Your task to perform on an android device: turn on sleep mode Image 0: 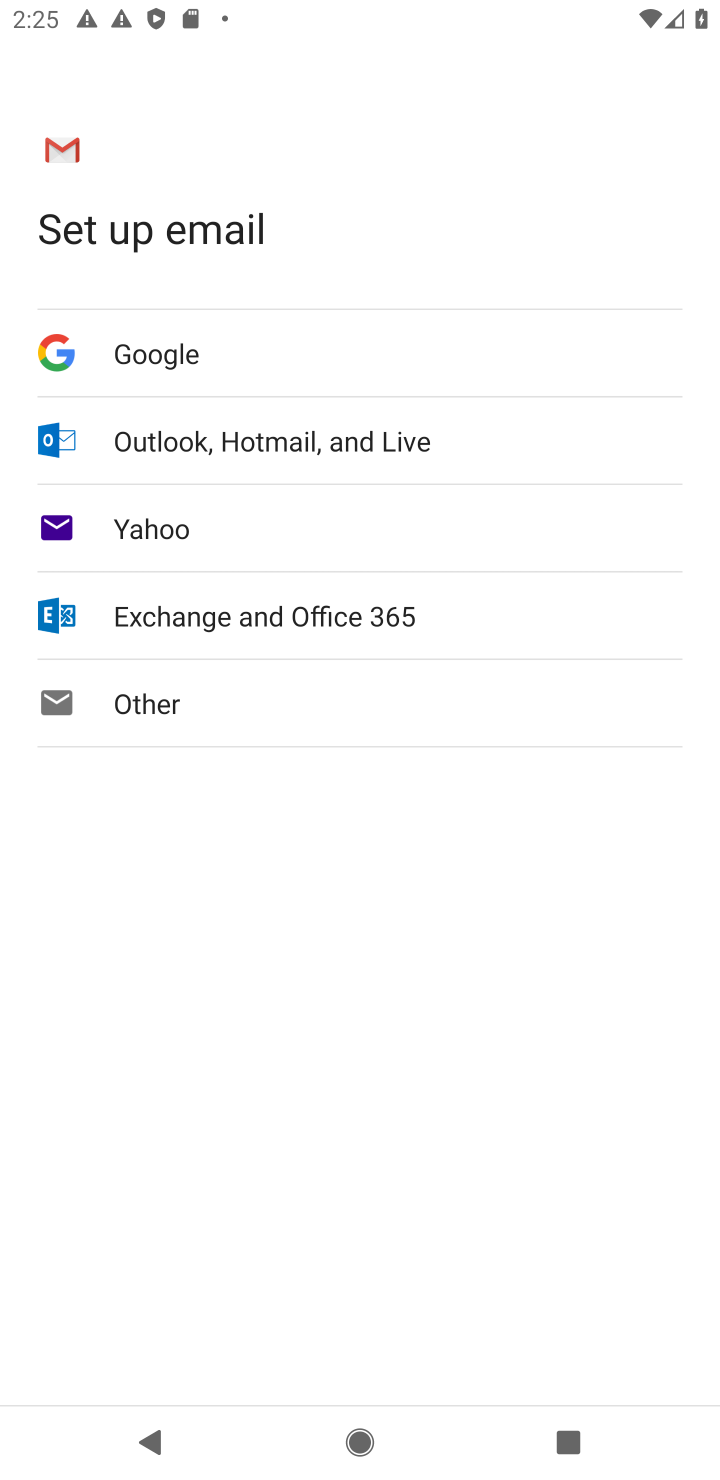
Step 0: press home button
Your task to perform on an android device: turn on sleep mode Image 1: 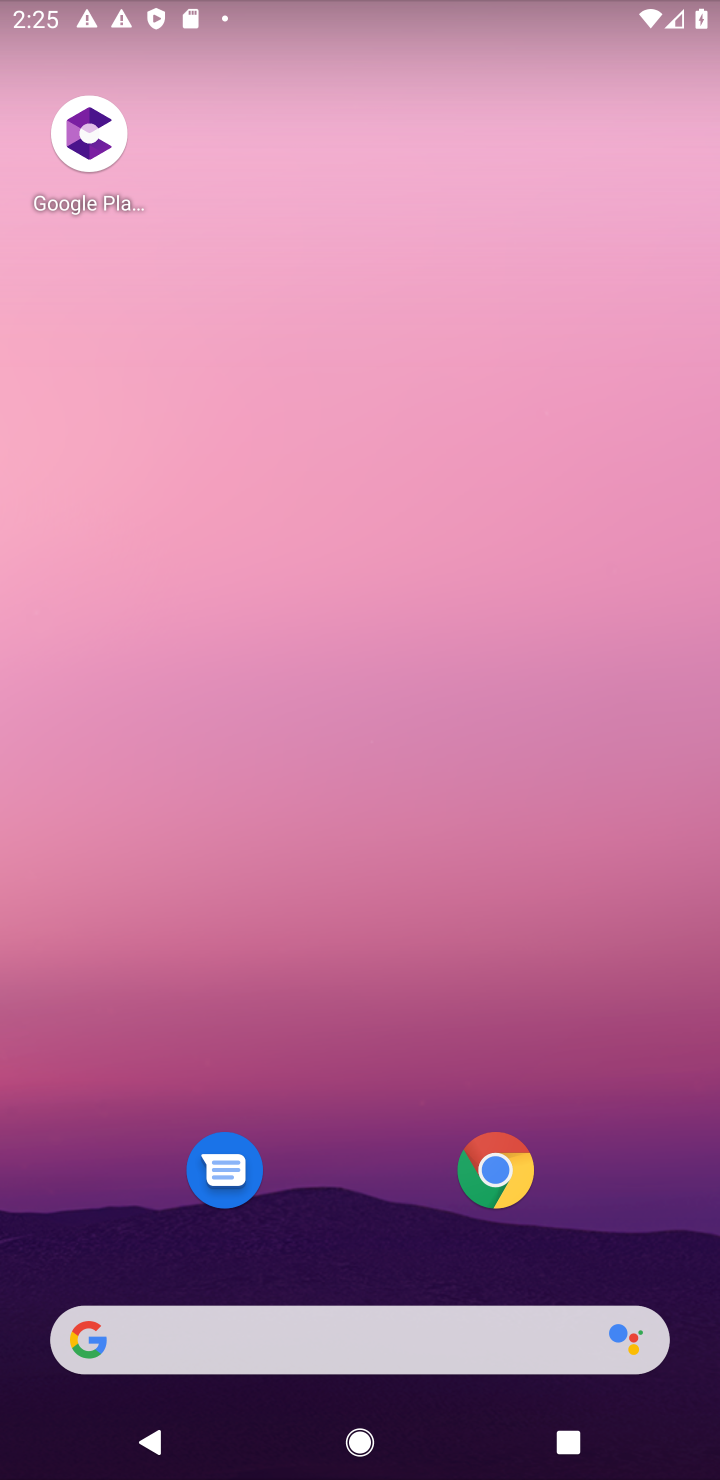
Step 1: drag from (360, 1143) to (220, 138)
Your task to perform on an android device: turn on sleep mode Image 2: 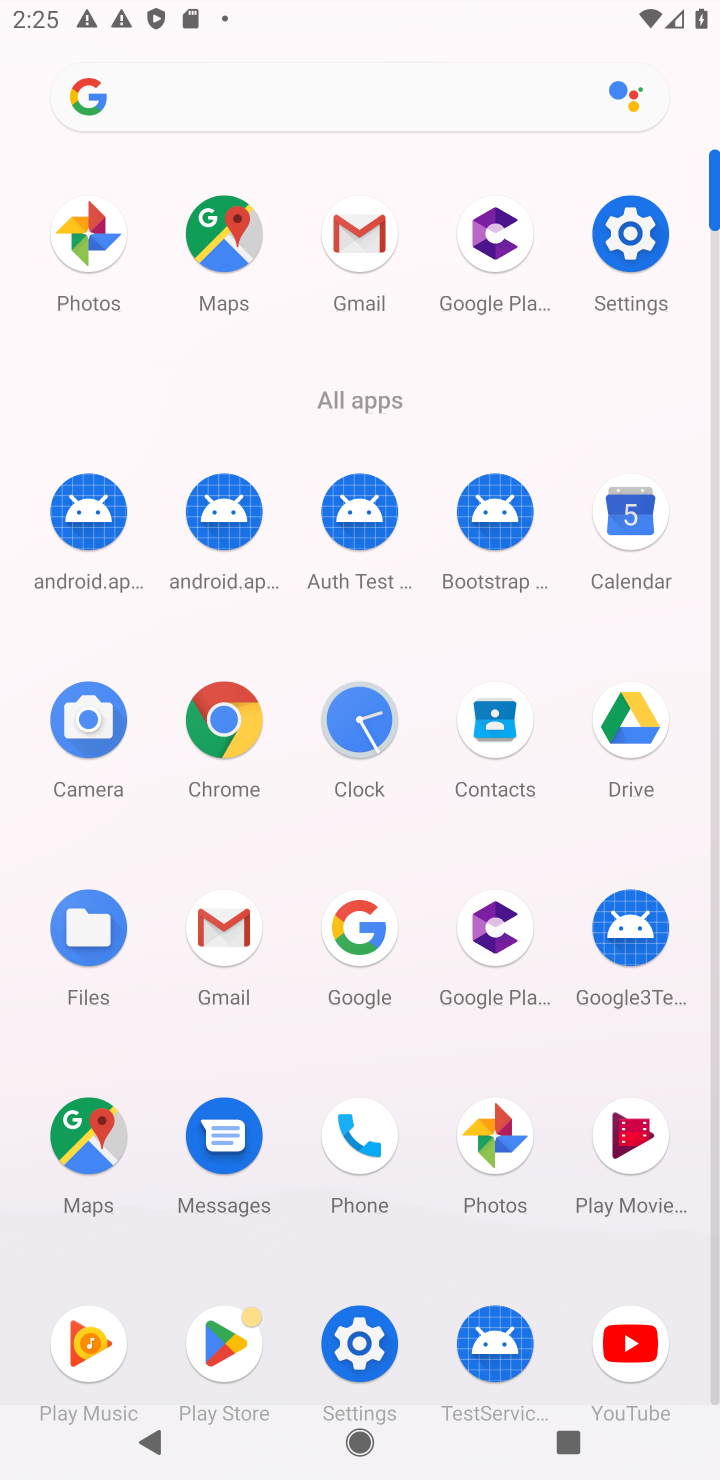
Step 2: click (368, 1341)
Your task to perform on an android device: turn on sleep mode Image 3: 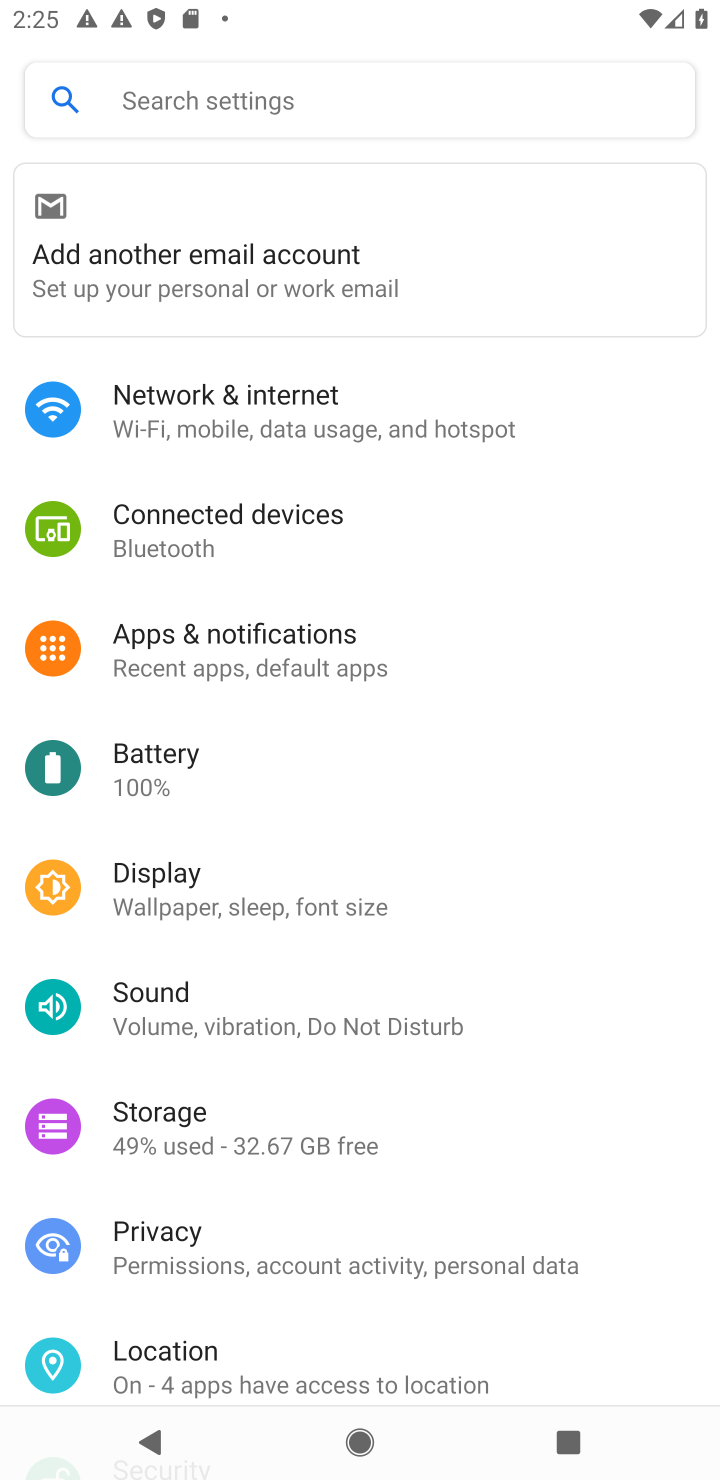
Step 3: click (288, 892)
Your task to perform on an android device: turn on sleep mode Image 4: 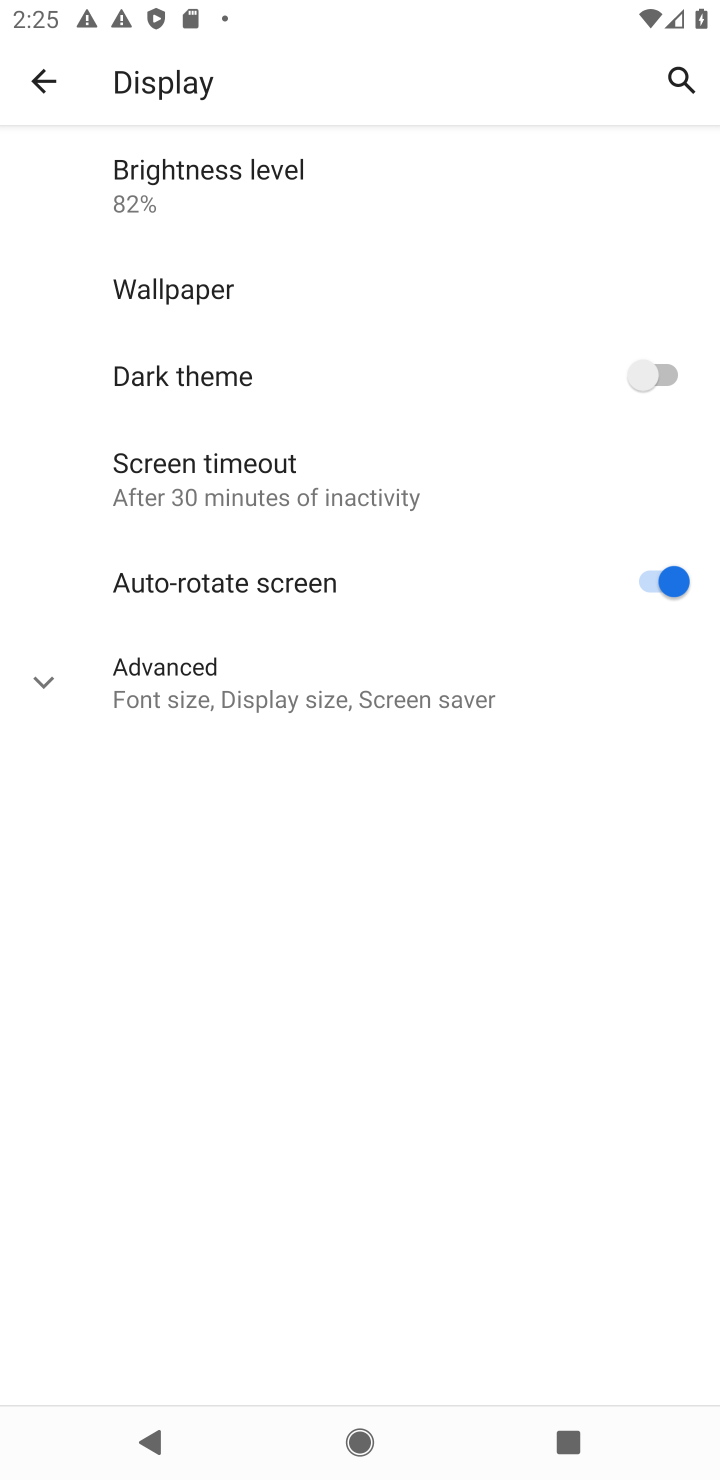
Step 4: click (457, 691)
Your task to perform on an android device: turn on sleep mode Image 5: 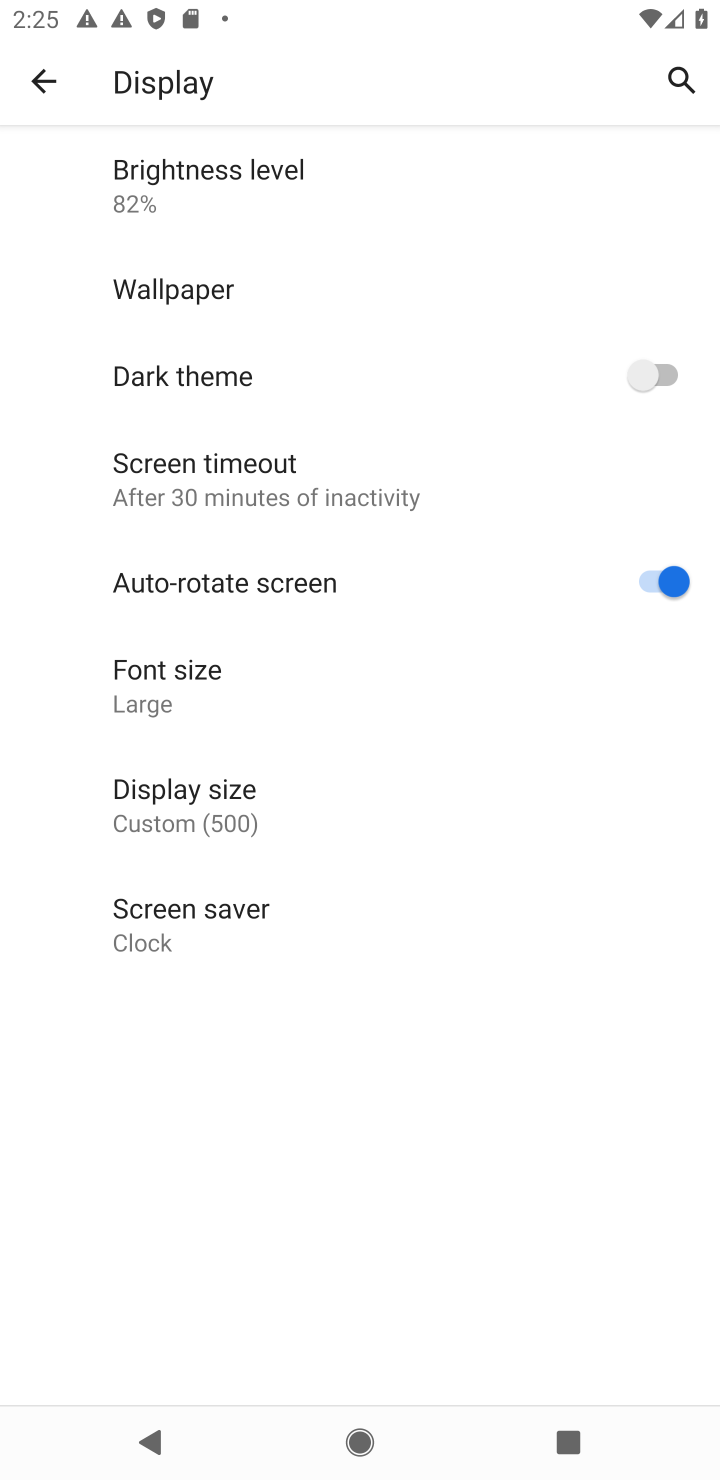
Step 5: task complete